Your task to perform on an android device: turn on notifications settings in the gmail app Image 0: 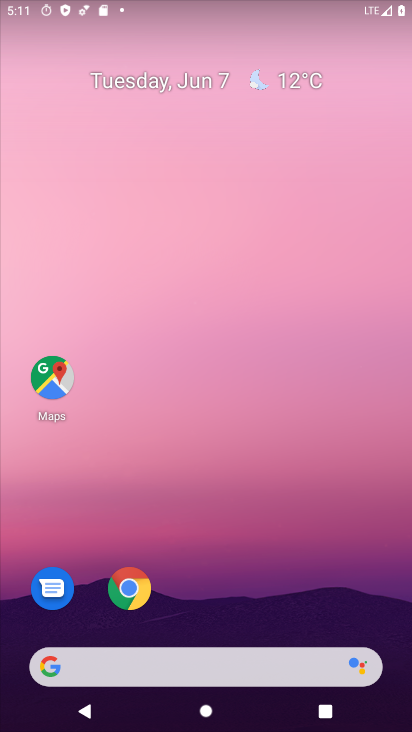
Step 0: drag from (219, 636) to (297, 159)
Your task to perform on an android device: turn on notifications settings in the gmail app Image 1: 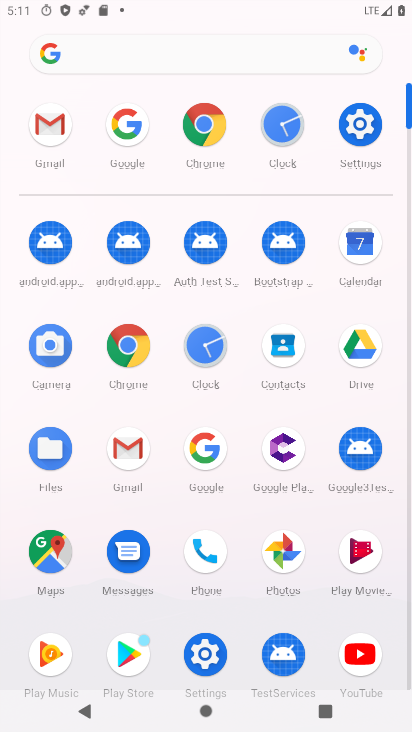
Step 1: click (135, 474)
Your task to perform on an android device: turn on notifications settings in the gmail app Image 2: 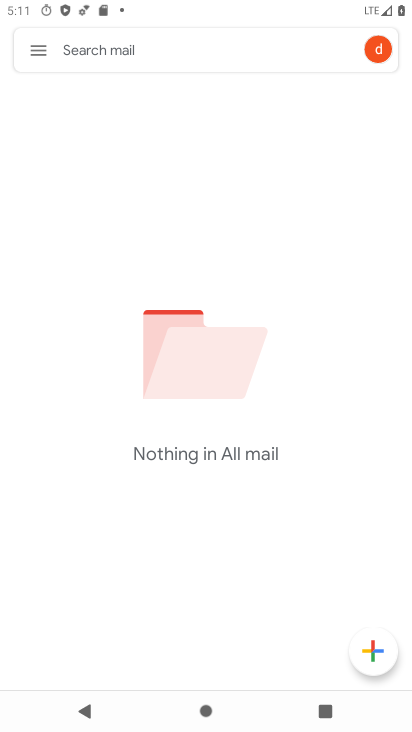
Step 2: click (37, 53)
Your task to perform on an android device: turn on notifications settings in the gmail app Image 3: 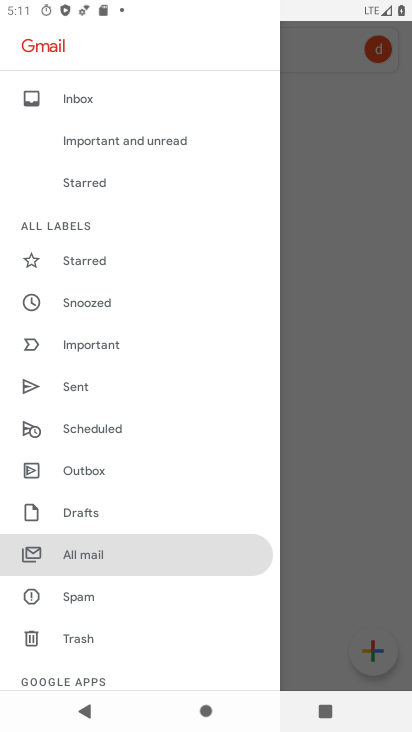
Step 3: drag from (109, 652) to (128, 410)
Your task to perform on an android device: turn on notifications settings in the gmail app Image 4: 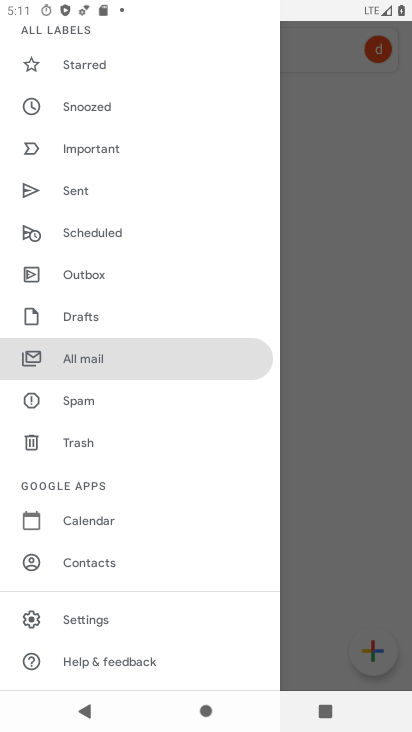
Step 4: click (84, 620)
Your task to perform on an android device: turn on notifications settings in the gmail app Image 5: 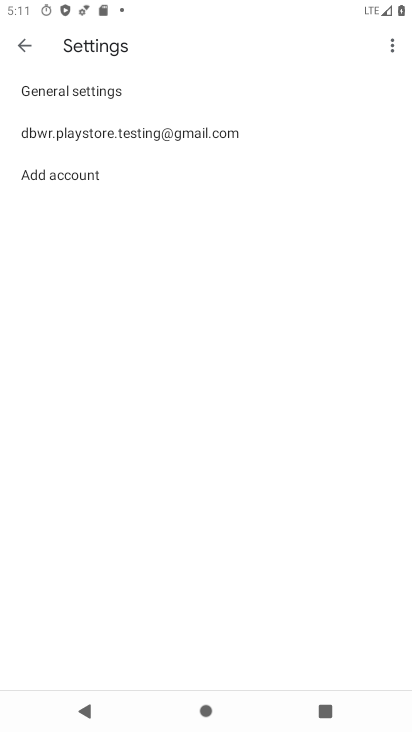
Step 5: click (140, 139)
Your task to perform on an android device: turn on notifications settings in the gmail app Image 6: 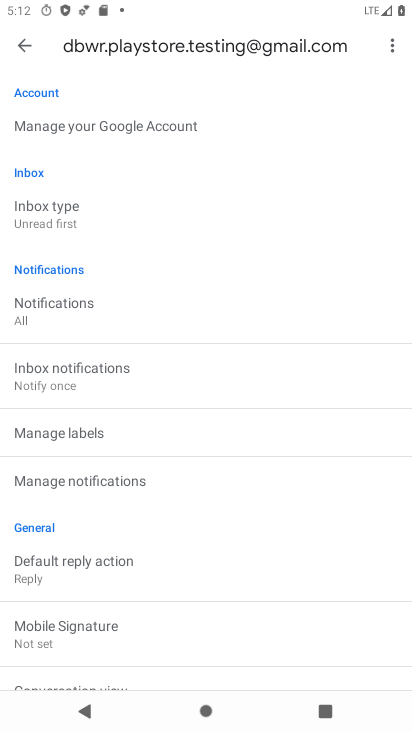
Step 6: drag from (76, 664) to (141, 454)
Your task to perform on an android device: turn on notifications settings in the gmail app Image 7: 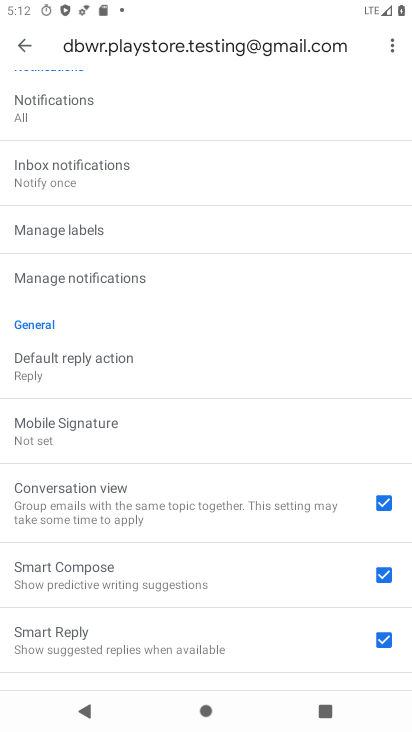
Step 7: click (101, 278)
Your task to perform on an android device: turn on notifications settings in the gmail app Image 8: 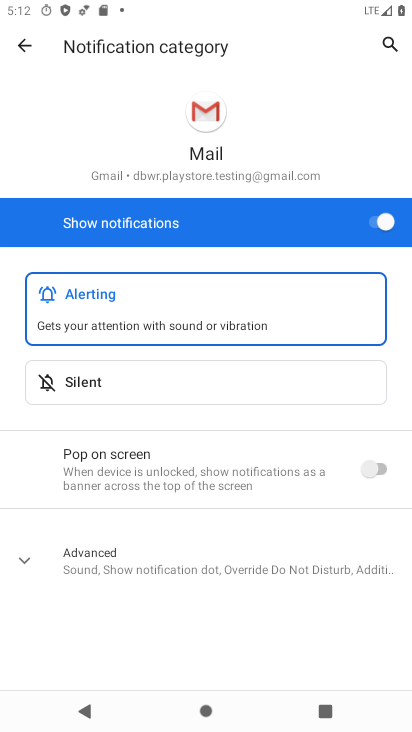
Step 8: task complete